Your task to perform on an android device: create a new album in the google photos Image 0: 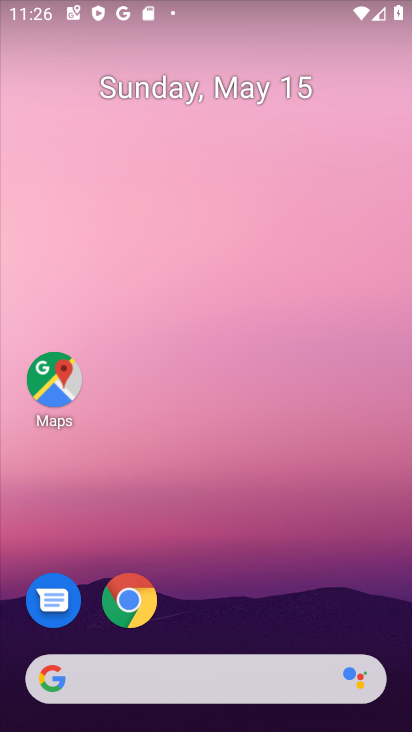
Step 0: click (262, 216)
Your task to perform on an android device: create a new album in the google photos Image 1: 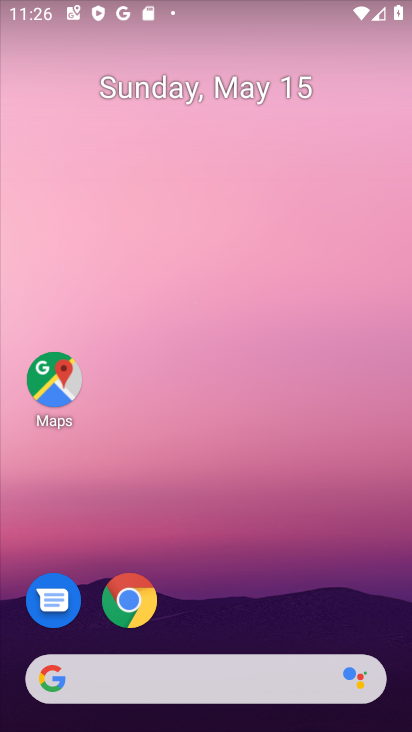
Step 1: drag from (229, 665) to (319, 204)
Your task to perform on an android device: create a new album in the google photos Image 2: 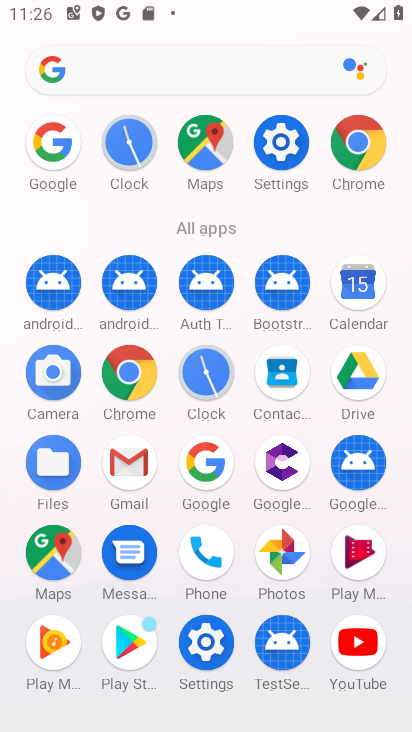
Step 2: click (277, 544)
Your task to perform on an android device: create a new album in the google photos Image 3: 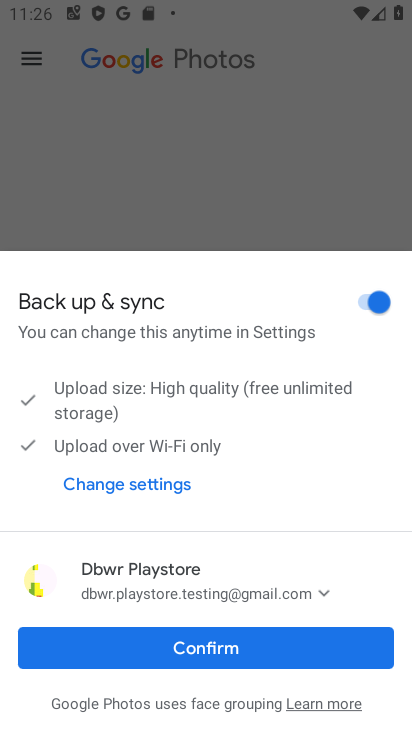
Step 3: click (236, 646)
Your task to perform on an android device: create a new album in the google photos Image 4: 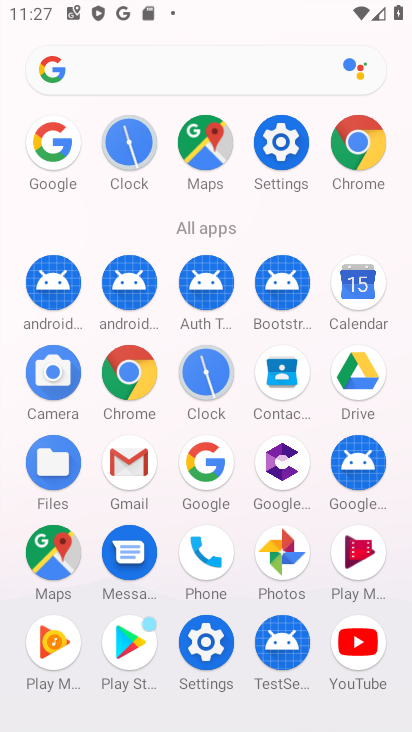
Step 4: click (284, 562)
Your task to perform on an android device: create a new album in the google photos Image 5: 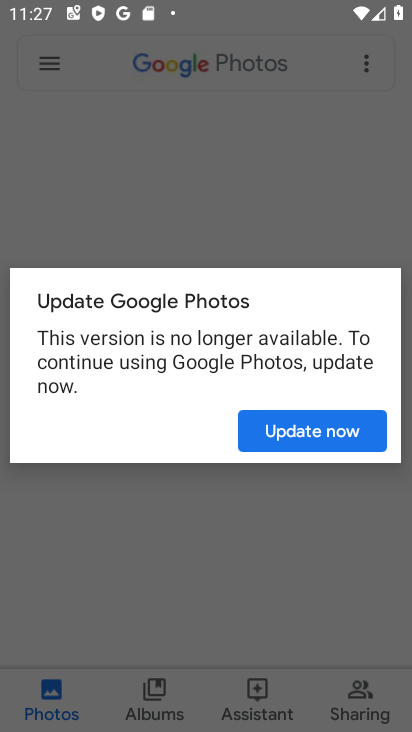
Step 5: click (296, 438)
Your task to perform on an android device: create a new album in the google photos Image 6: 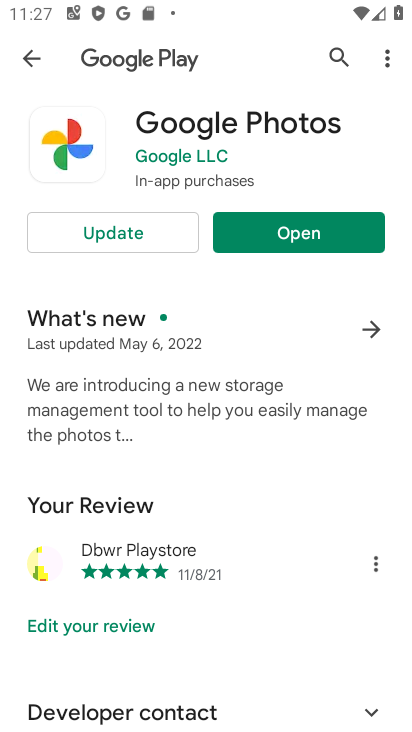
Step 6: click (125, 220)
Your task to perform on an android device: create a new album in the google photos Image 7: 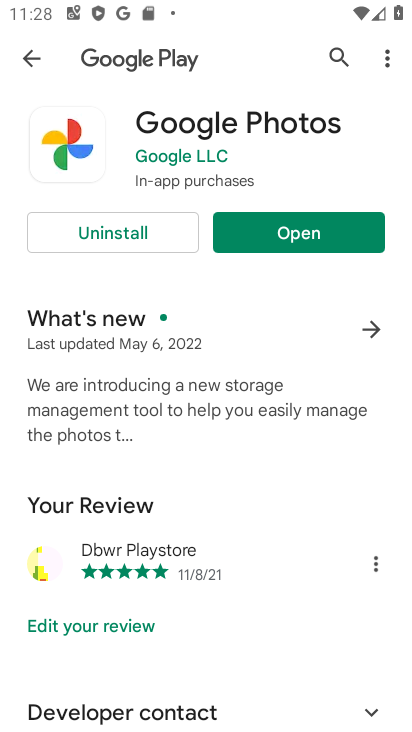
Step 7: click (273, 233)
Your task to perform on an android device: create a new album in the google photos Image 8: 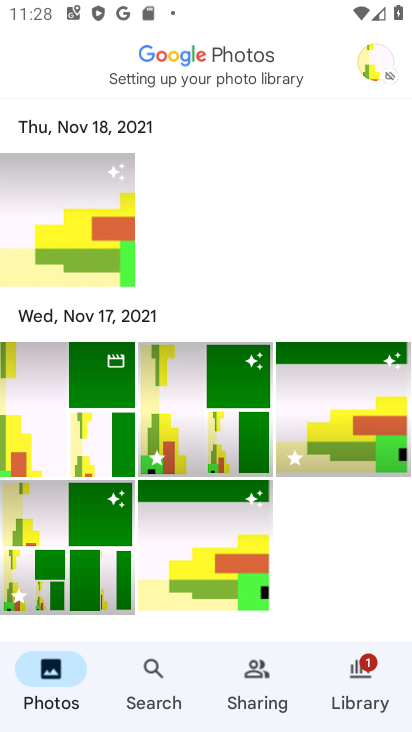
Step 8: click (348, 694)
Your task to perform on an android device: create a new album in the google photos Image 9: 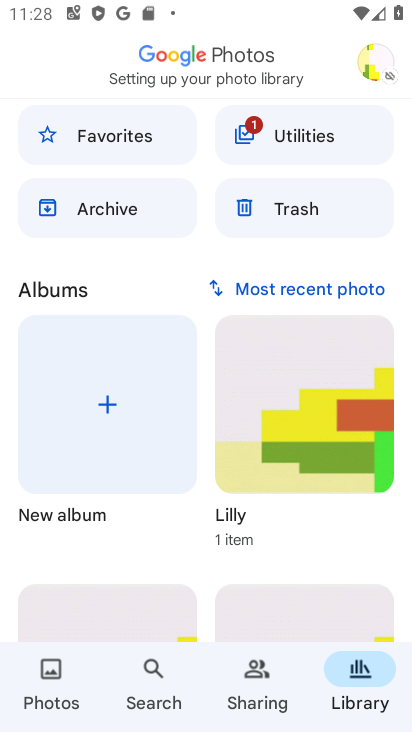
Step 9: click (97, 426)
Your task to perform on an android device: create a new album in the google photos Image 10: 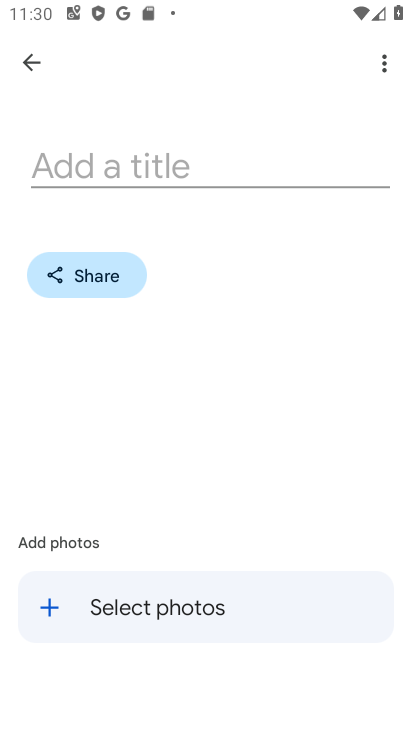
Step 10: click (129, 162)
Your task to perform on an android device: create a new album in the google photos Image 11: 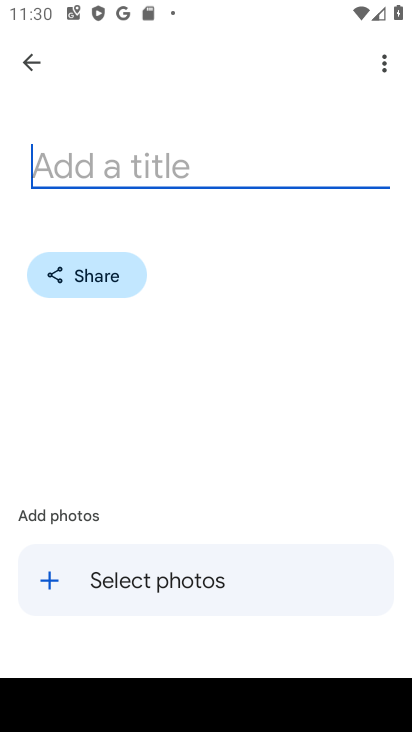
Step 11: type "hgdfc"
Your task to perform on an android device: create a new album in the google photos Image 12: 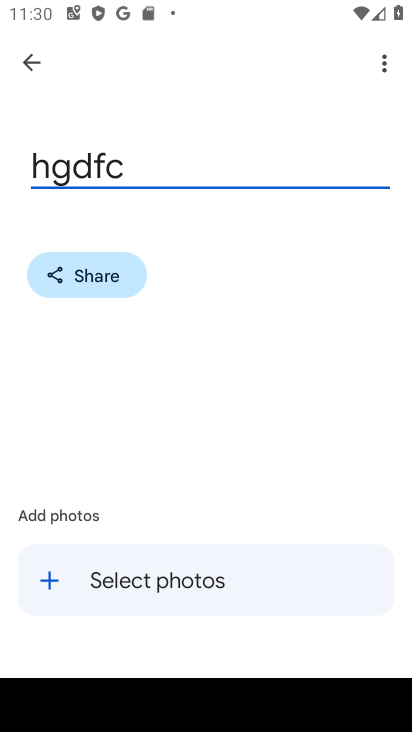
Step 12: click (147, 572)
Your task to perform on an android device: create a new album in the google photos Image 13: 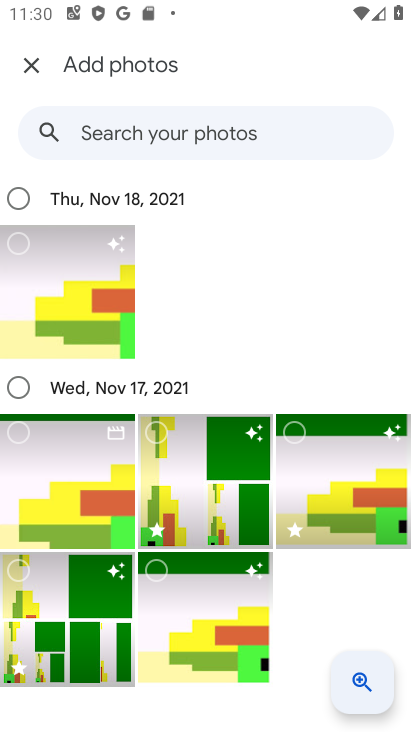
Step 13: click (22, 199)
Your task to perform on an android device: create a new album in the google photos Image 14: 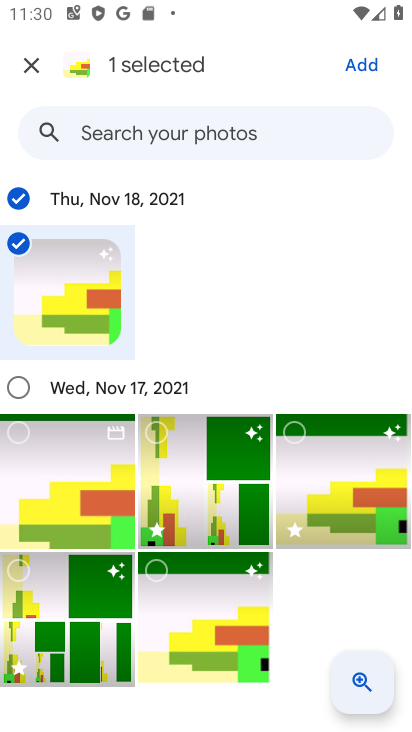
Step 14: click (363, 74)
Your task to perform on an android device: create a new album in the google photos Image 15: 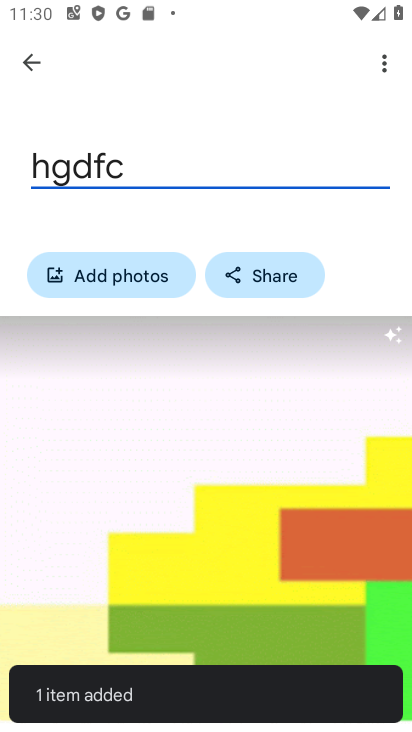
Step 15: task complete